Your task to perform on an android device: check out phone information Image 0: 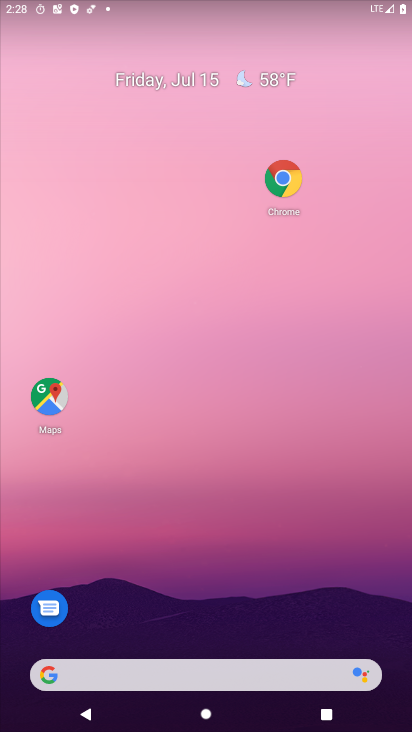
Step 0: drag from (217, 643) to (223, 101)
Your task to perform on an android device: check out phone information Image 1: 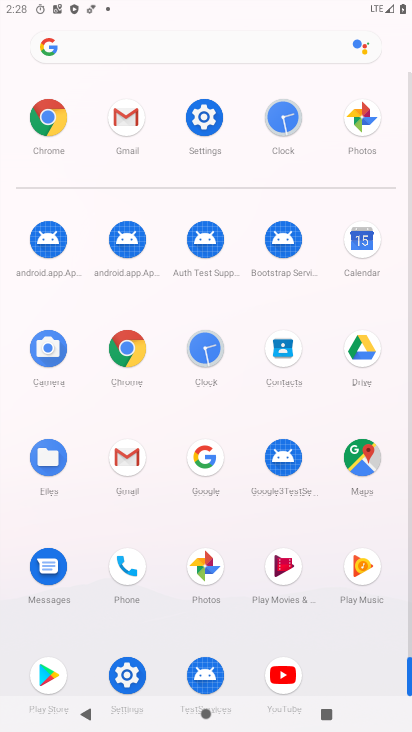
Step 1: click (121, 564)
Your task to perform on an android device: check out phone information Image 2: 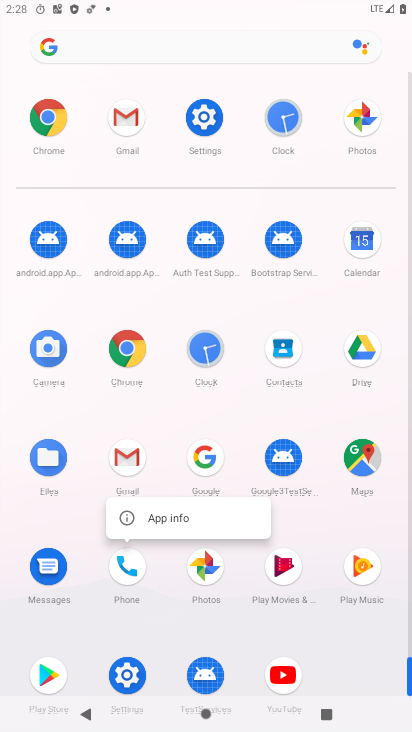
Step 2: click (168, 512)
Your task to perform on an android device: check out phone information Image 3: 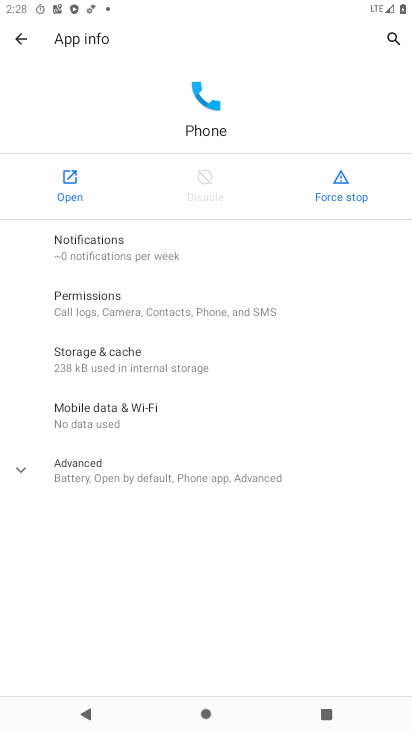
Step 3: drag from (211, 575) to (228, 249)
Your task to perform on an android device: check out phone information Image 4: 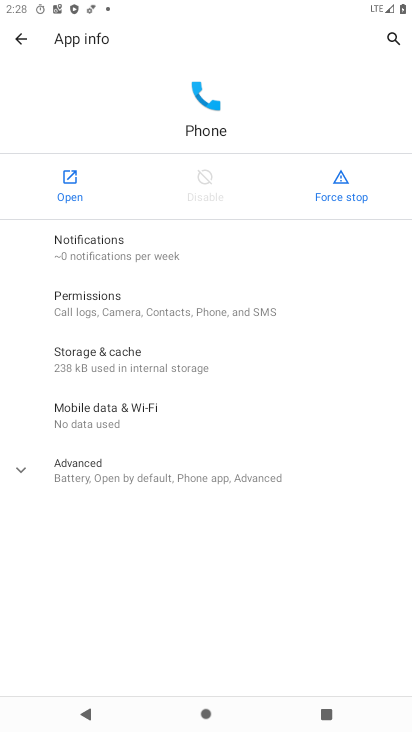
Step 4: click (93, 472)
Your task to perform on an android device: check out phone information Image 5: 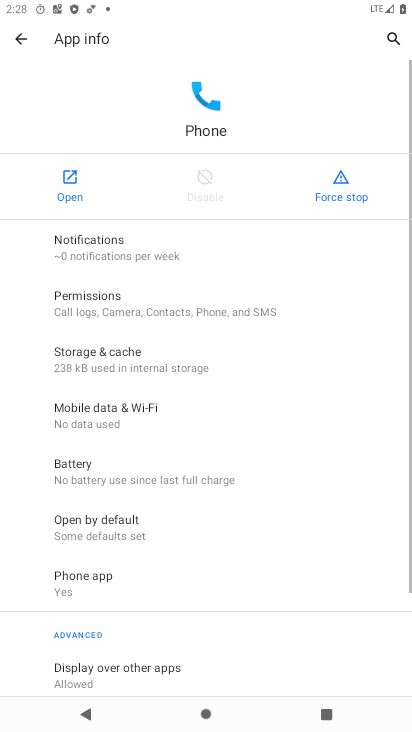
Step 5: task complete